Your task to perform on an android device: Go to wifi settings Image 0: 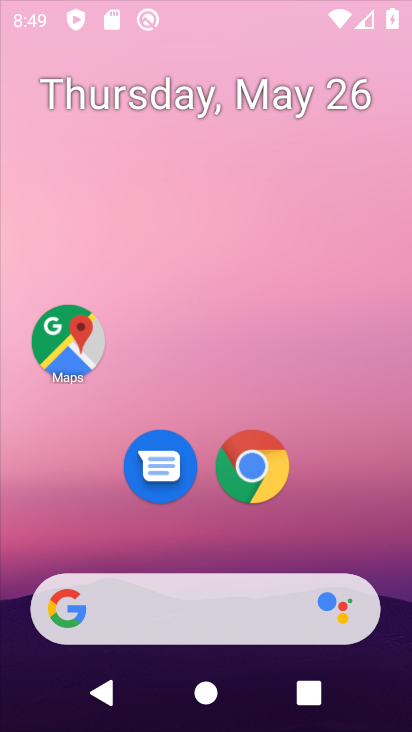
Step 0: drag from (332, 510) to (167, 120)
Your task to perform on an android device: Go to wifi settings Image 1: 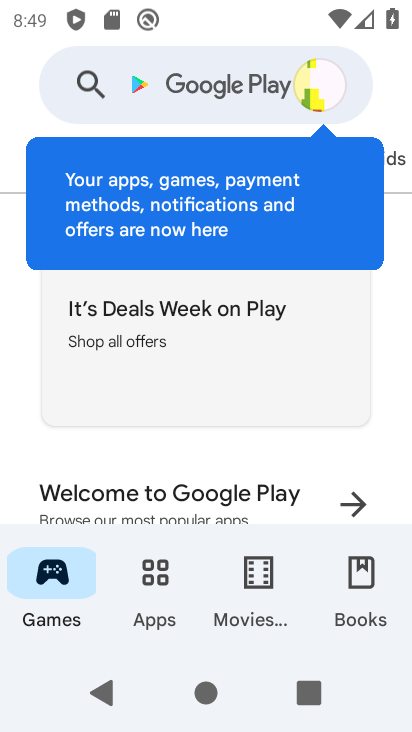
Step 1: press home button
Your task to perform on an android device: Go to wifi settings Image 2: 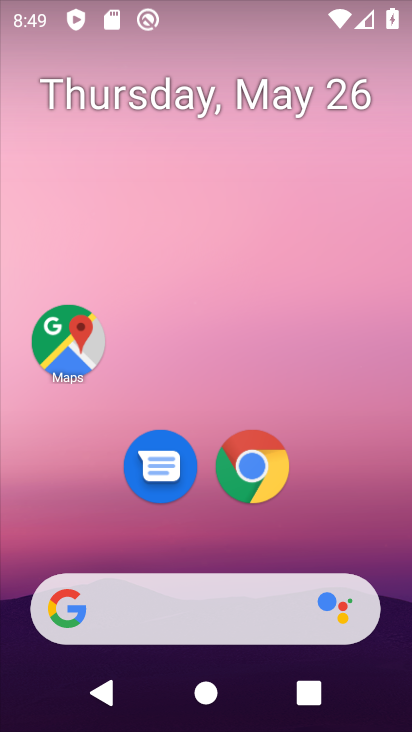
Step 2: drag from (353, 496) to (257, 36)
Your task to perform on an android device: Go to wifi settings Image 3: 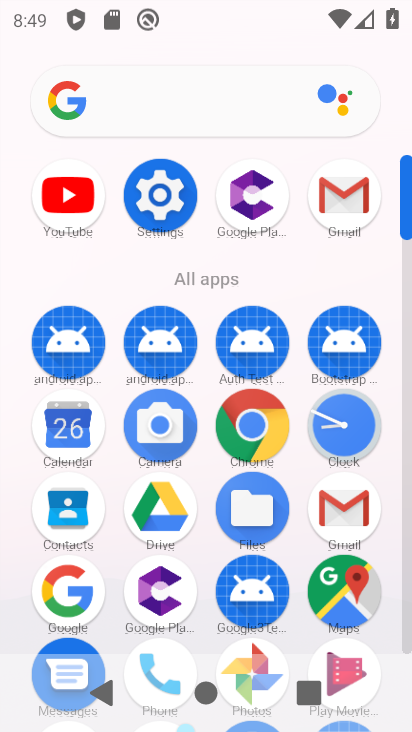
Step 3: click (164, 197)
Your task to perform on an android device: Go to wifi settings Image 4: 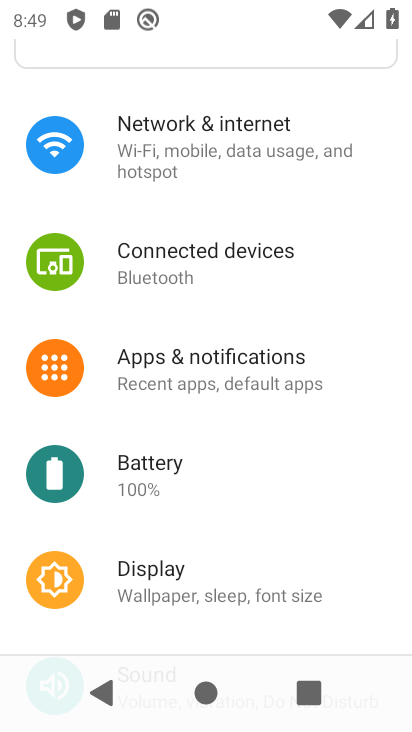
Step 4: click (178, 137)
Your task to perform on an android device: Go to wifi settings Image 5: 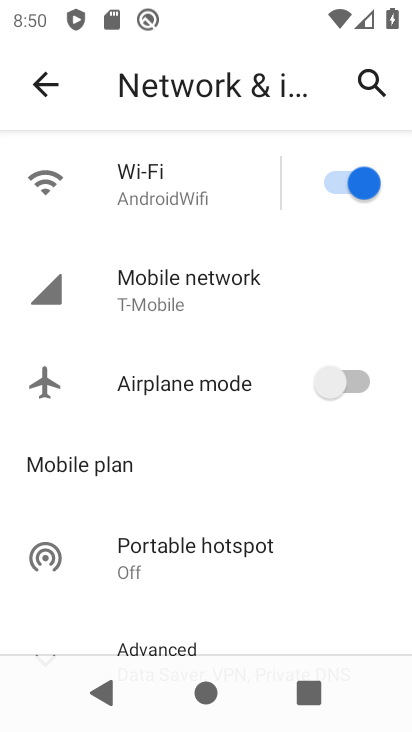
Step 5: click (167, 167)
Your task to perform on an android device: Go to wifi settings Image 6: 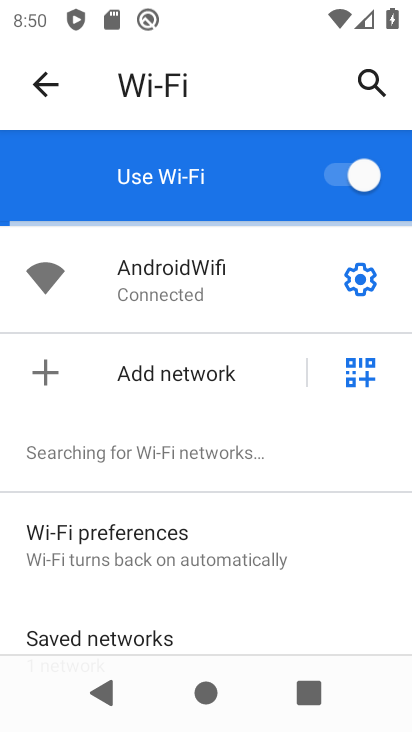
Step 6: task complete